Your task to perform on an android device: uninstall "VLC for Android" Image 0: 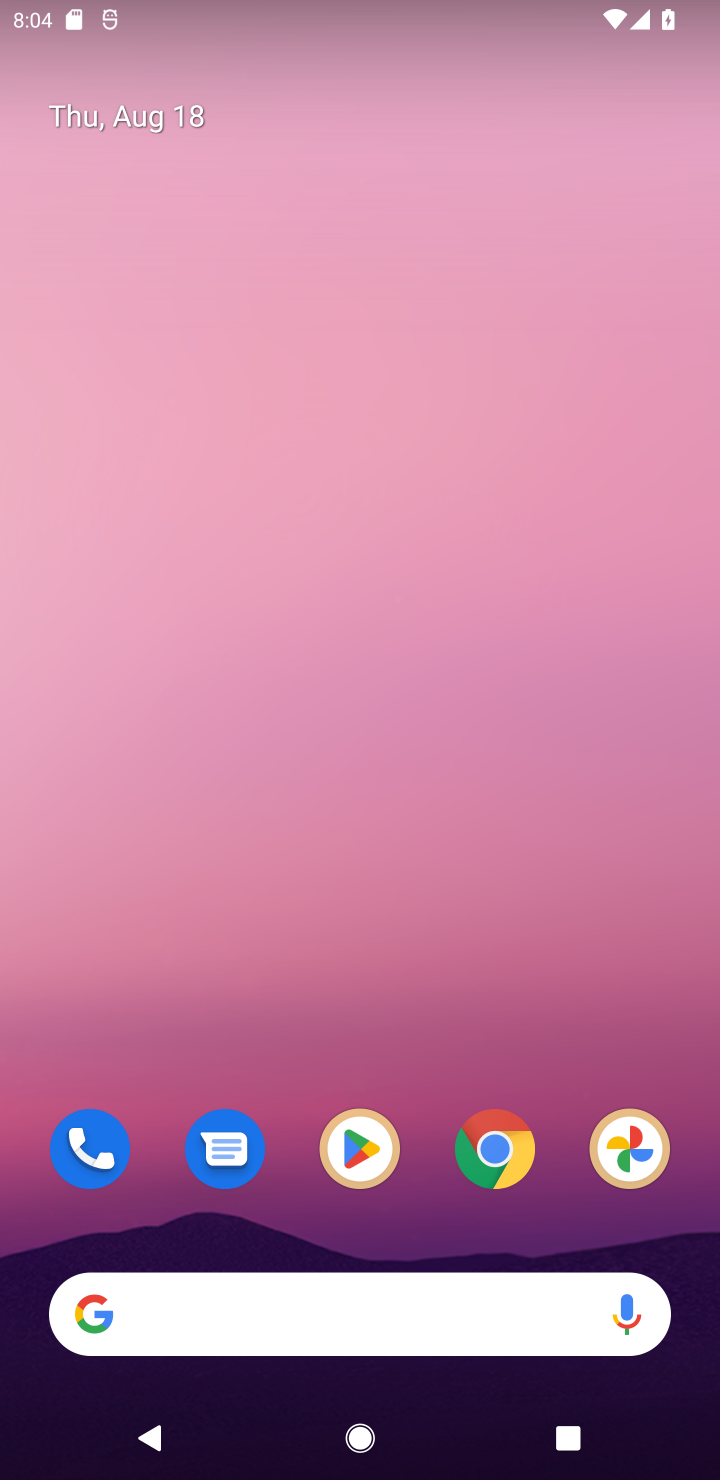
Step 0: drag from (695, 1257) to (226, 17)
Your task to perform on an android device: uninstall "VLC for Android" Image 1: 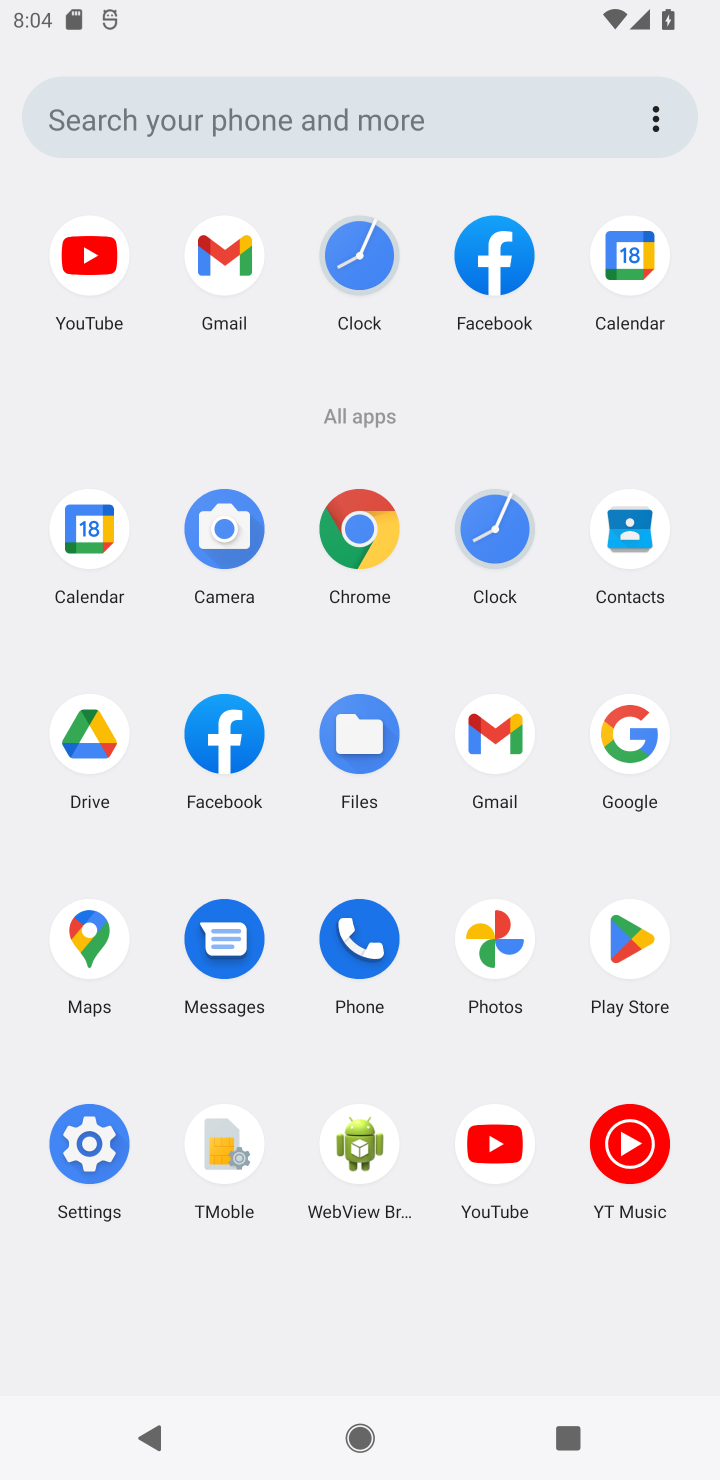
Step 1: click (615, 987)
Your task to perform on an android device: uninstall "VLC for Android" Image 2: 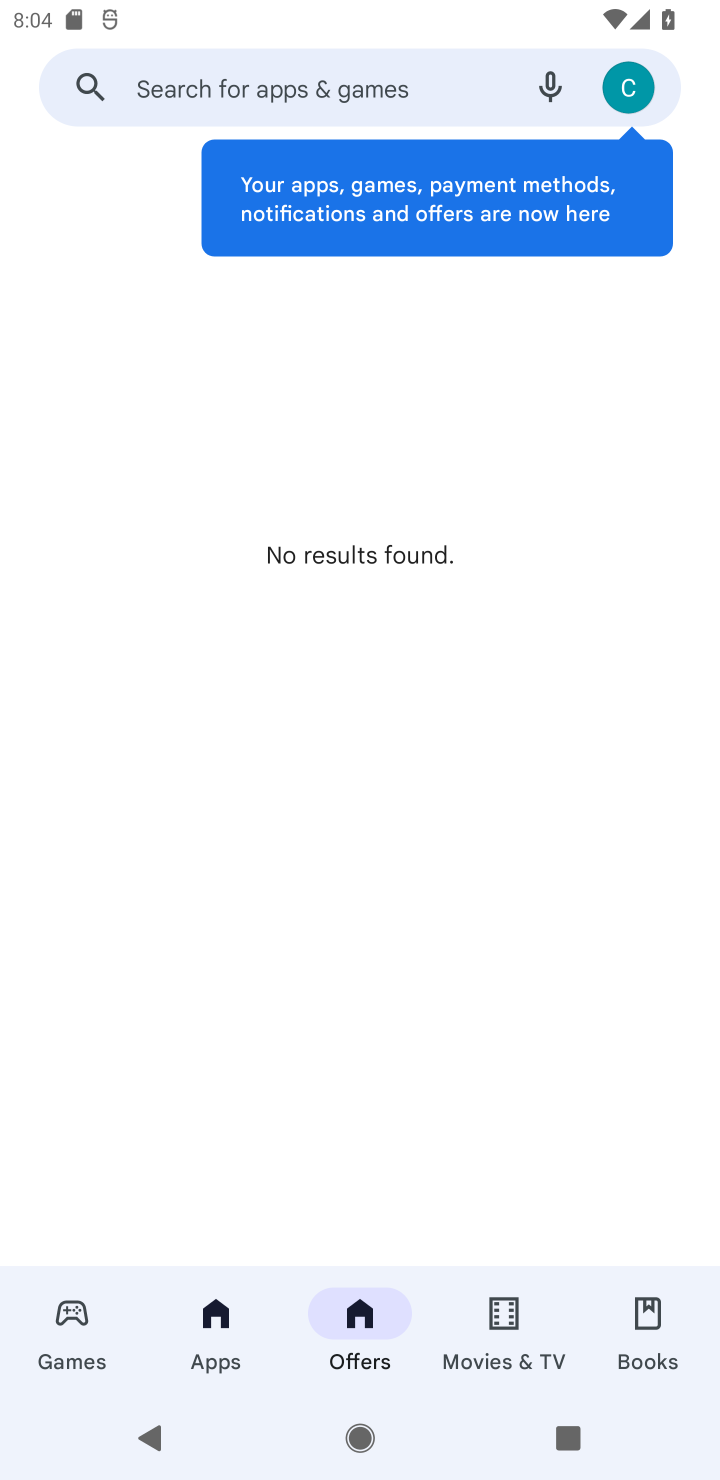
Step 2: click (221, 90)
Your task to perform on an android device: uninstall "VLC for Android" Image 3: 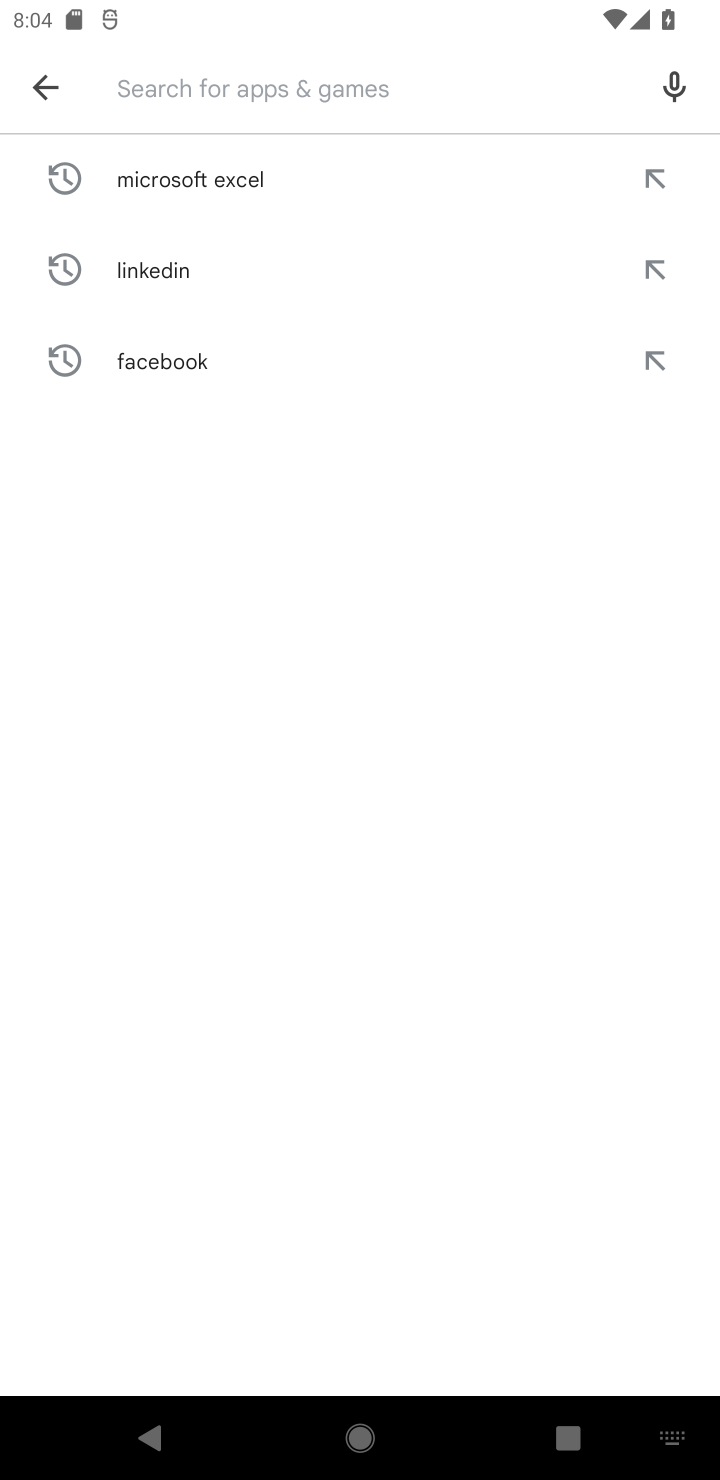
Step 3: type "VLC for Android"
Your task to perform on an android device: uninstall "VLC for Android" Image 4: 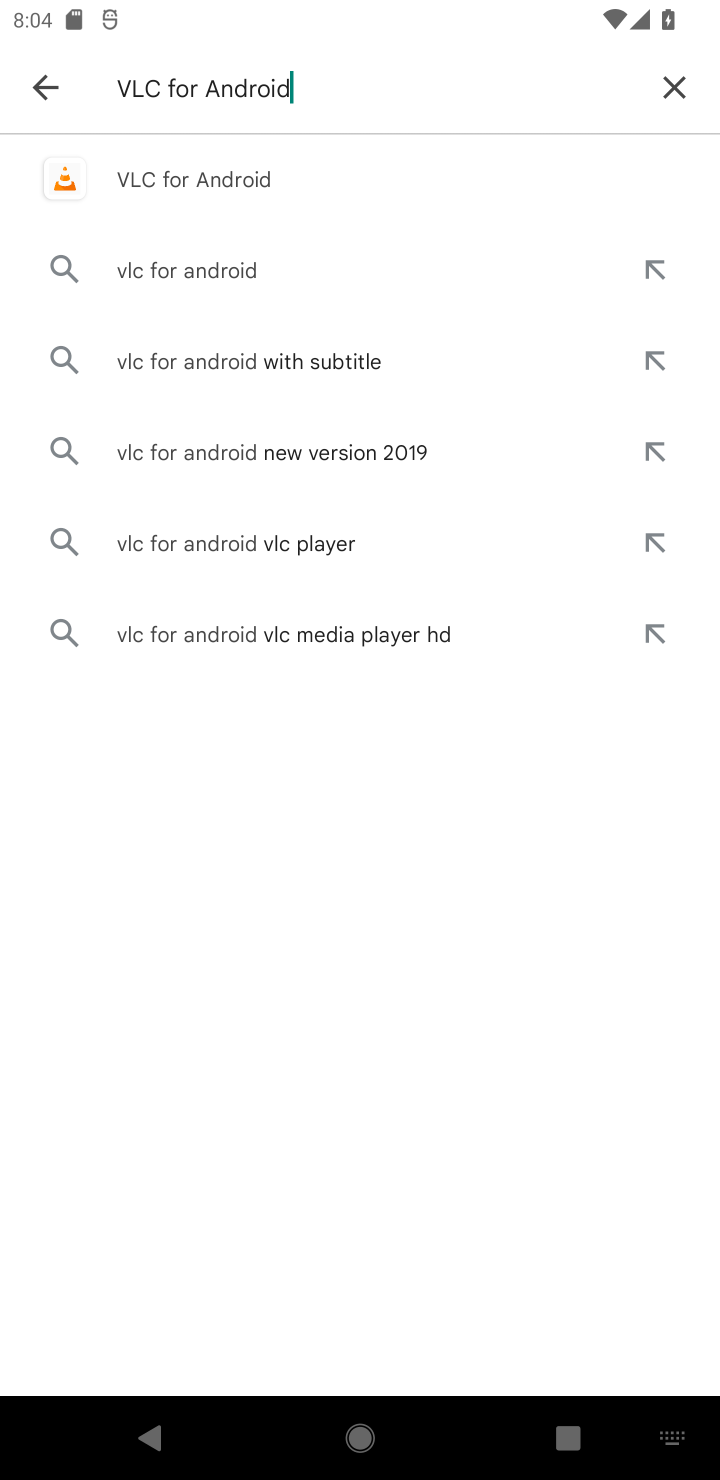
Step 4: click (203, 197)
Your task to perform on an android device: uninstall "VLC for Android" Image 5: 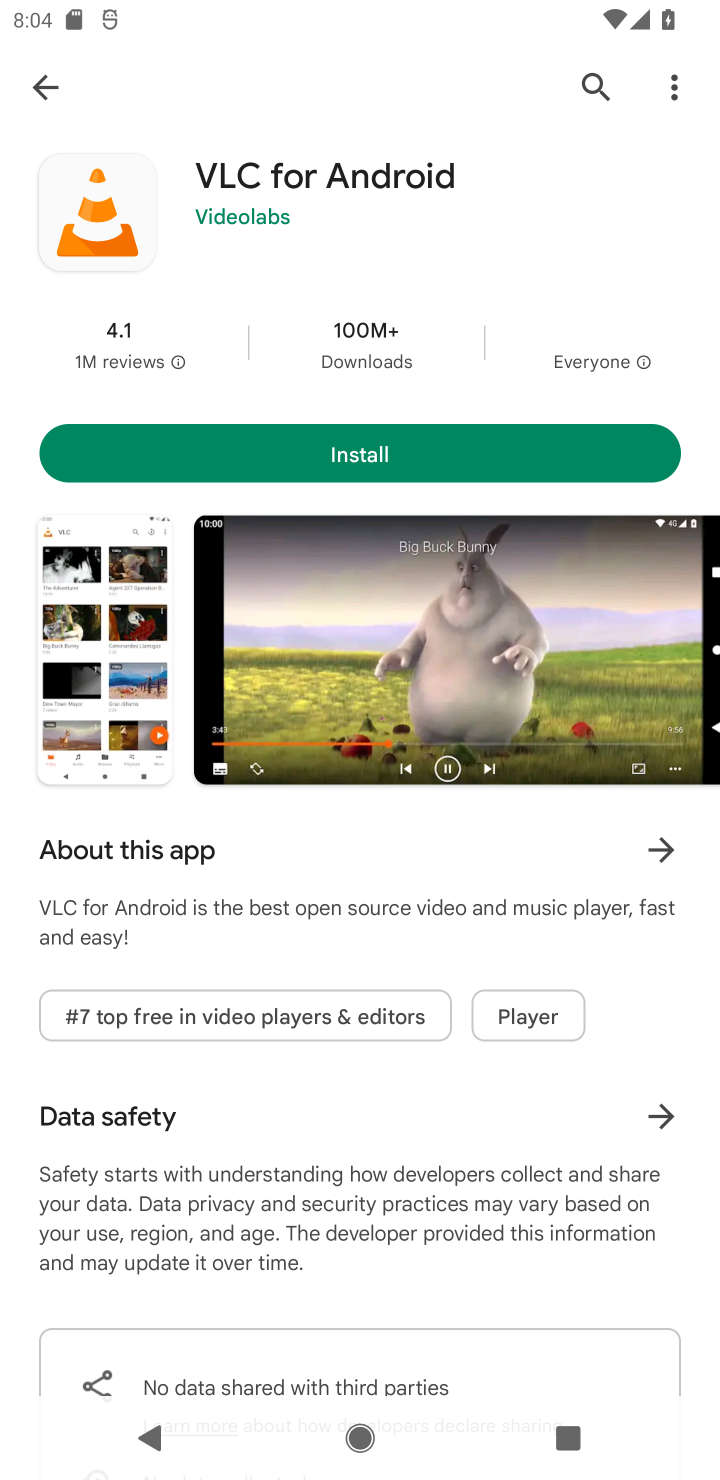
Step 5: task complete